Your task to perform on an android device: toggle location history Image 0: 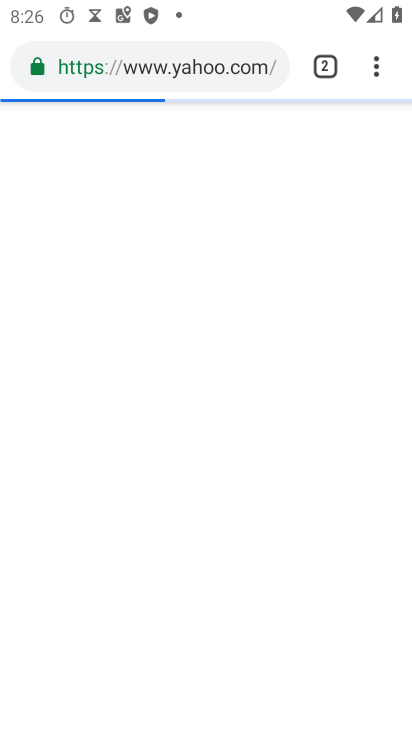
Step 0: press home button
Your task to perform on an android device: toggle location history Image 1: 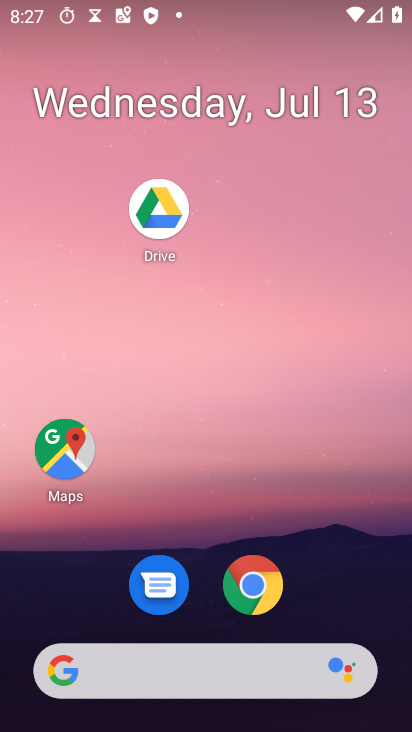
Step 1: click (57, 456)
Your task to perform on an android device: toggle location history Image 2: 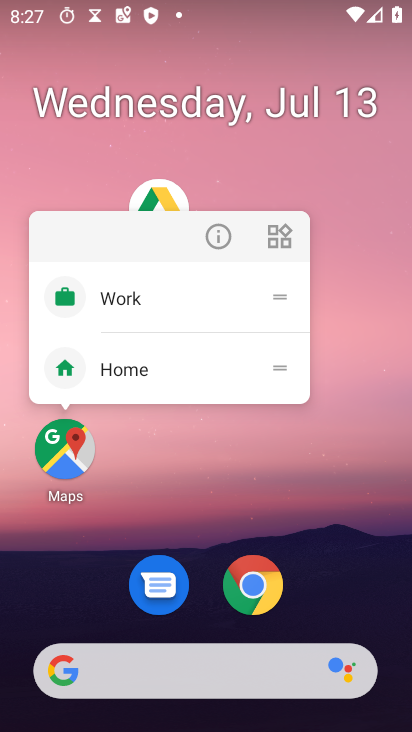
Step 2: click (55, 464)
Your task to perform on an android device: toggle location history Image 3: 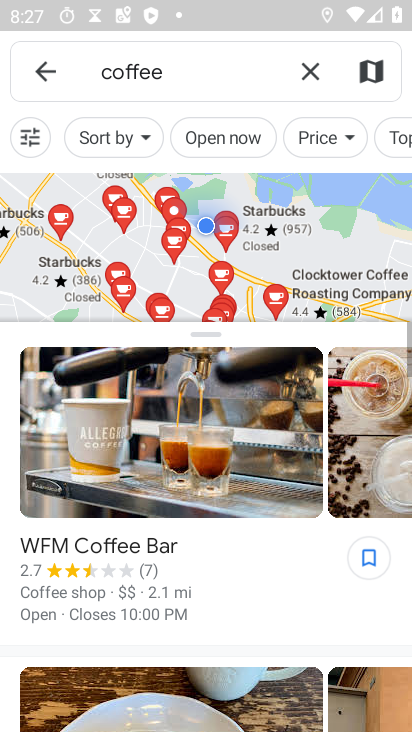
Step 3: click (46, 71)
Your task to perform on an android device: toggle location history Image 4: 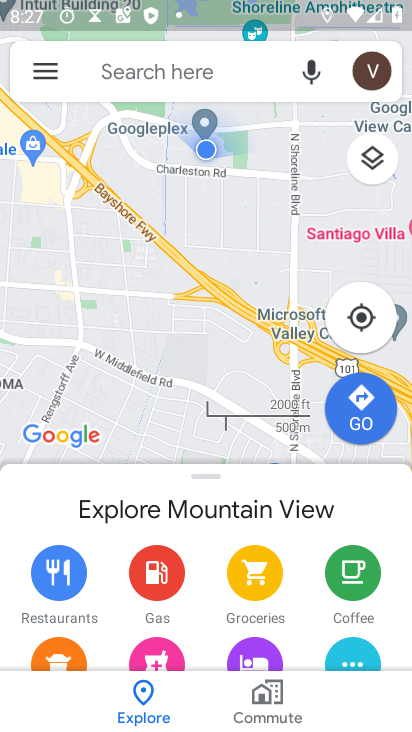
Step 4: click (46, 69)
Your task to perform on an android device: toggle location history Image 5: 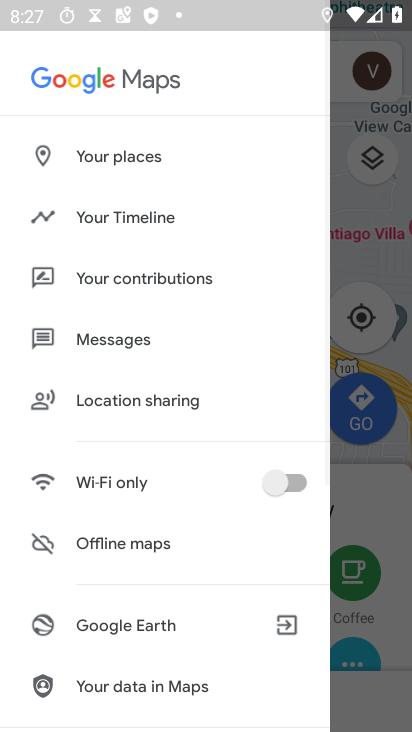
Step 5: click (124, 212)
Your task to perform on an android device: toggle location history Image 6: 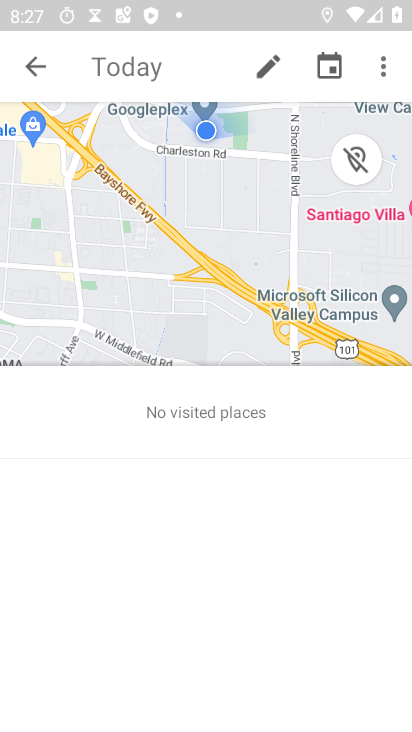
Step 6: click (380, 67)
Your task to perform on an android device: toggle location history Image 7: 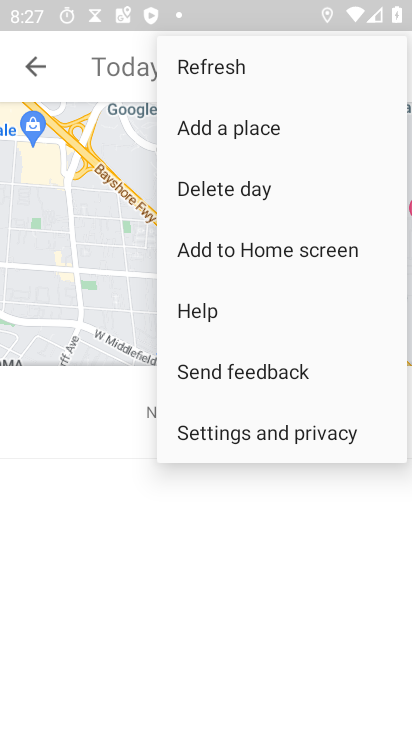
Step 7: click (247, 427)
Your task to perform on an android device: toggle location history Image 8: 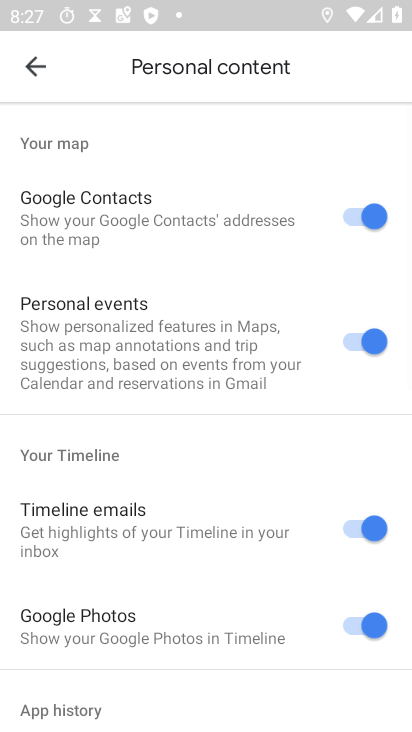
Step 8: drag from (156, 584) to (196, 143)
Your task to perform on an android device: toggle location history Image 9: 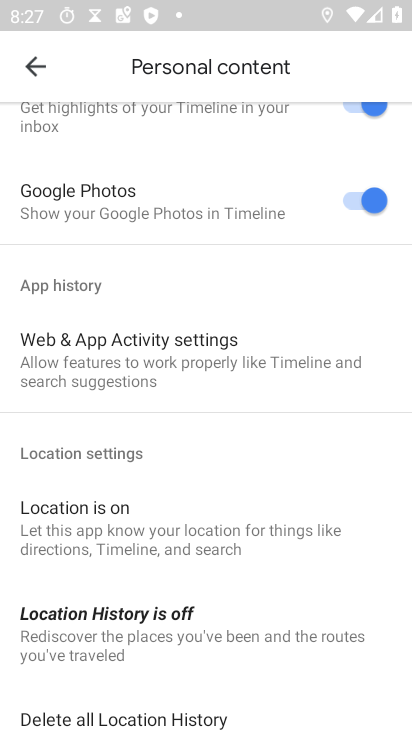
Step 9: click (173, 620)
Your task to perform on an android device: toggle location history Image 10: 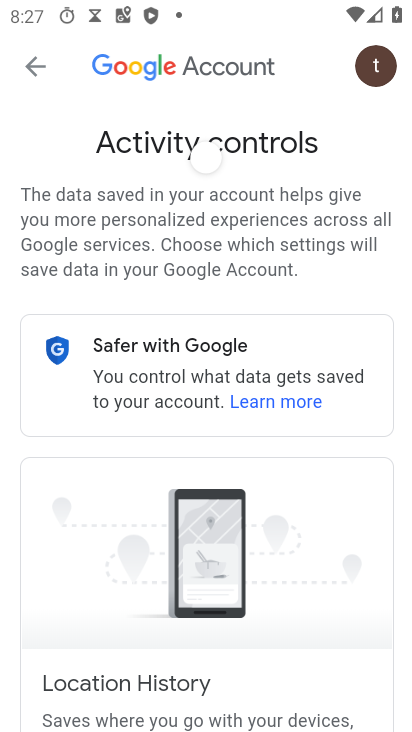
Step 10: drag from (224, 635) to (310, 156)
Your task to perform on an android device: toggle location history Image 11: 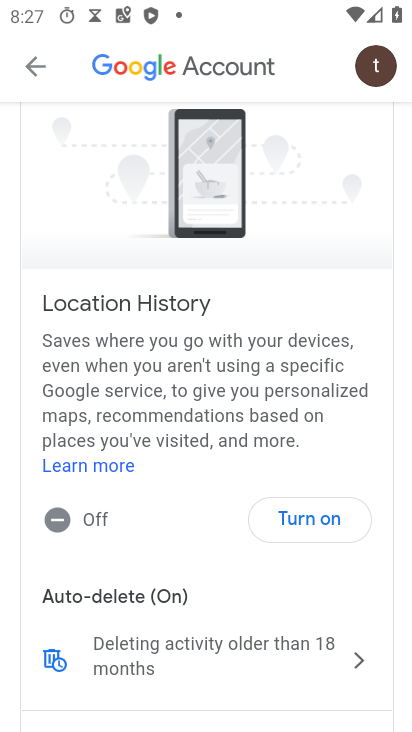
Step 11: click (321, 523)
Your task to perform on an android device: toggle location history Image 12: 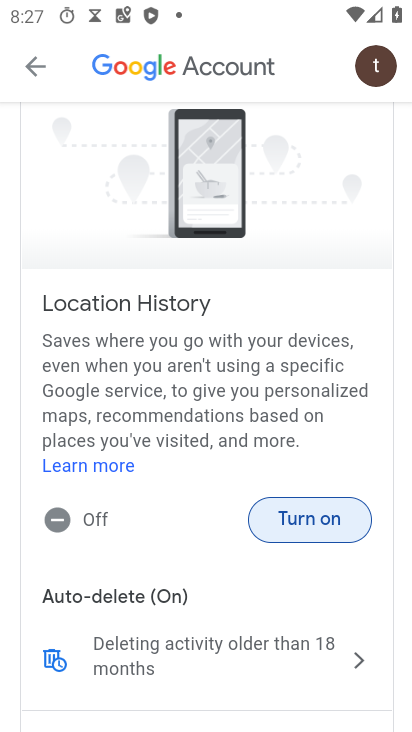
Step 12: click (309, 520)
Your task to perform on an android device: toggle location history Image 13: 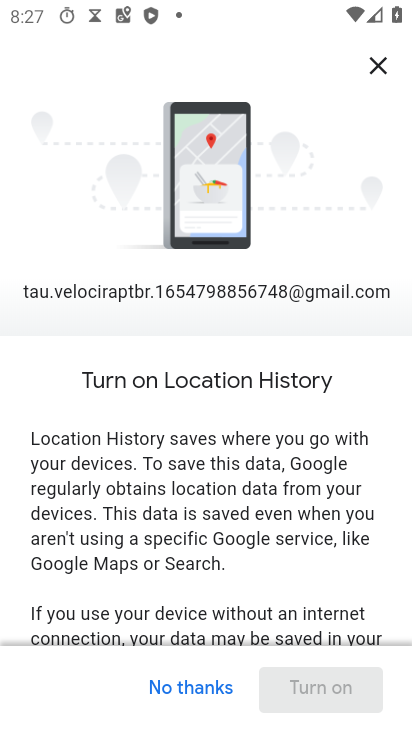
Step 13: drag from (224, 612) to (306, 57)
Your task to perform on an android device: toggle location history Image 14: 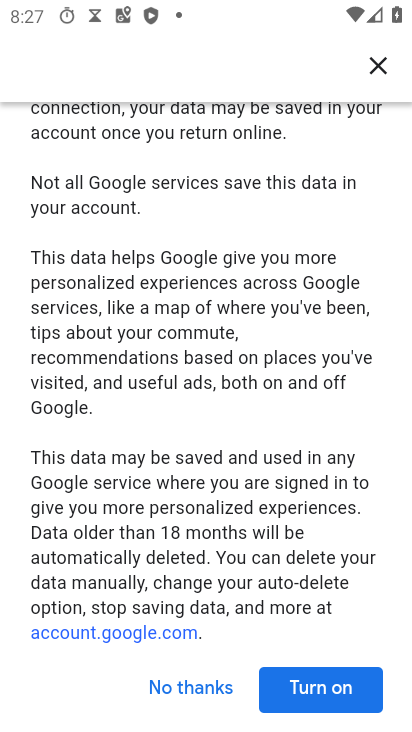
Step 14: click (330, 685)
Your task to perform on an android device: toggle location history Image 15: 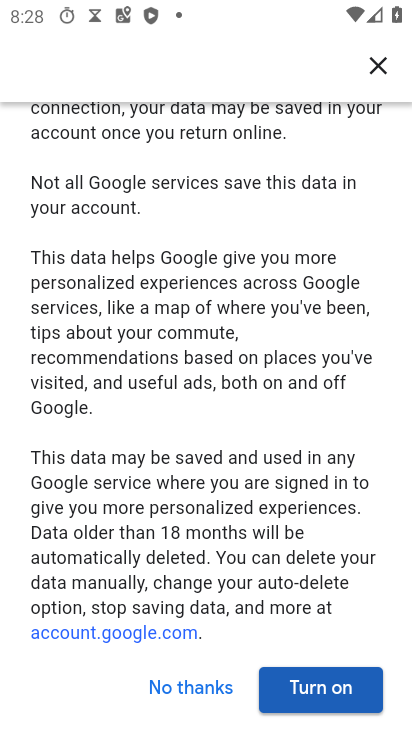
Step 15: click (328, 692)
Your task to perform on an android device: toggle location history Image 16: 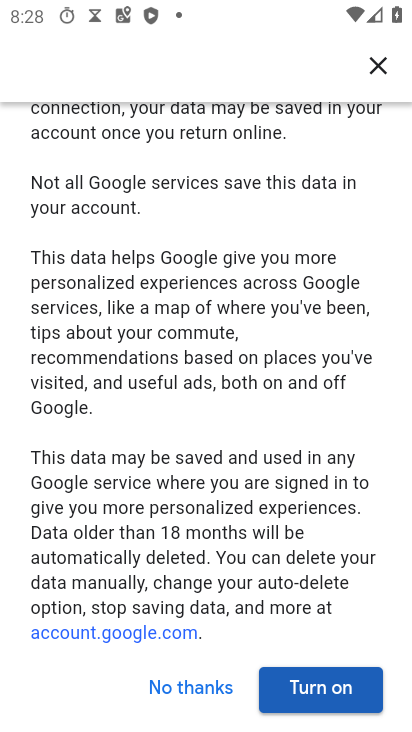
Step 16: click (323, 688)
Your task to perform on an android device: toggle location history Image 17: 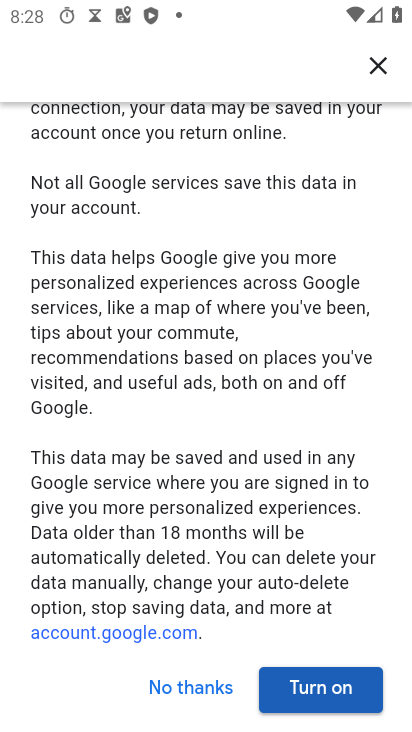
Step 17: click (323, 689)
Your task to perform on an android device: toggle location history Image 18: 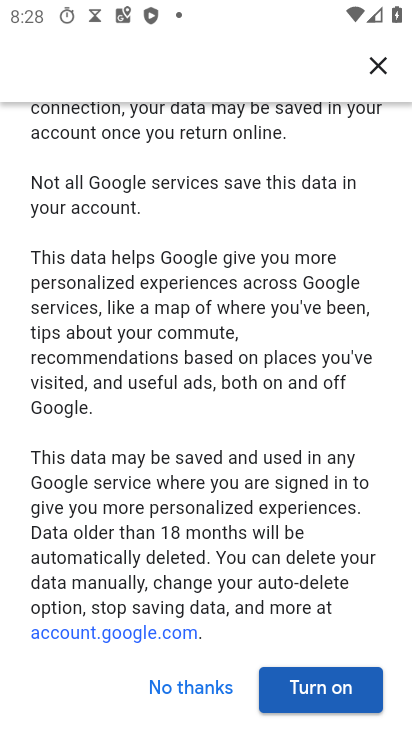
Step 18: click (338, 683)
Your task to perform on an android device: toggle location history Image 19: 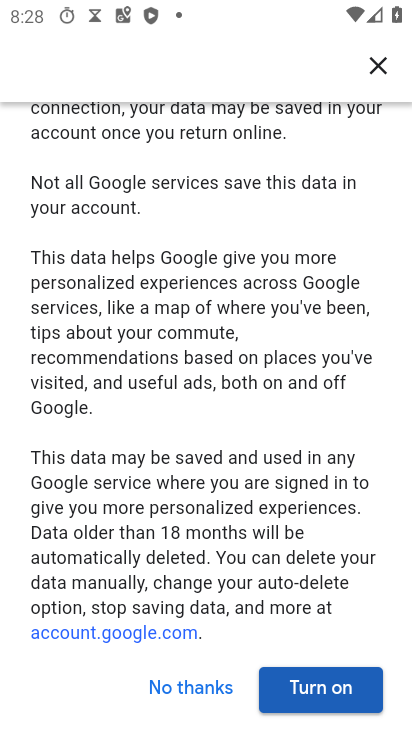
Step 19: click (337, 685)
Your task to perform on an android device: toggle location history Image 20: 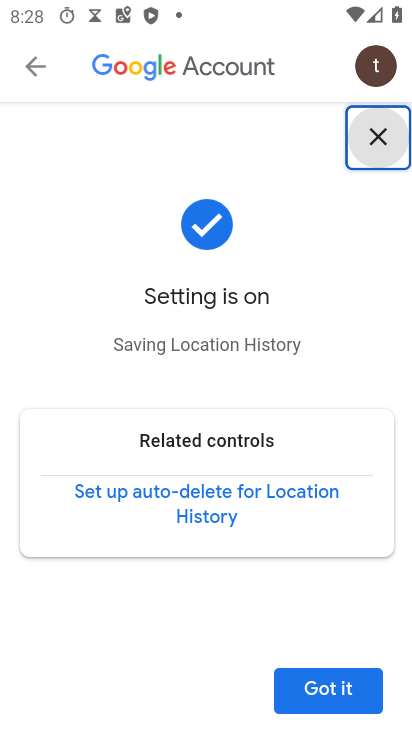
Step 20: click (316, 683)
Your task to perform on an android device: toggle location history Image 21: 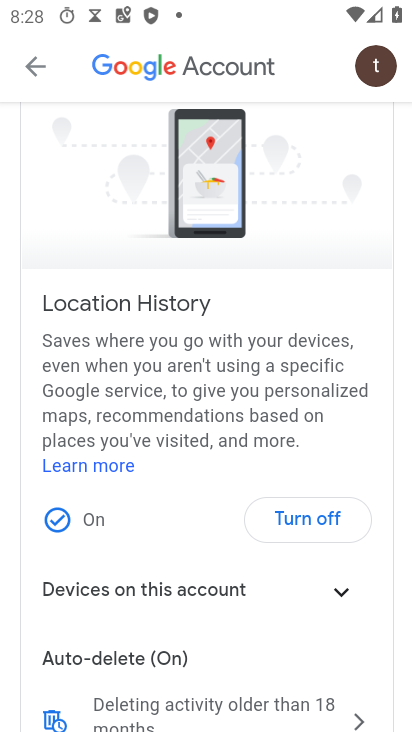
Step 21: task complete